Your task to perform on an android device: allow notifications from all sites in the chrome app Image 0: 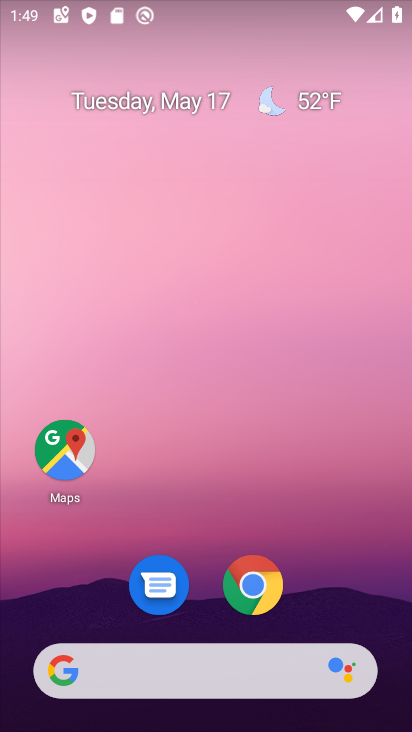
Step 0: click (258, 582)
Your task to perform on an android device: allow notifications from all sites in the chrome app Image 1: 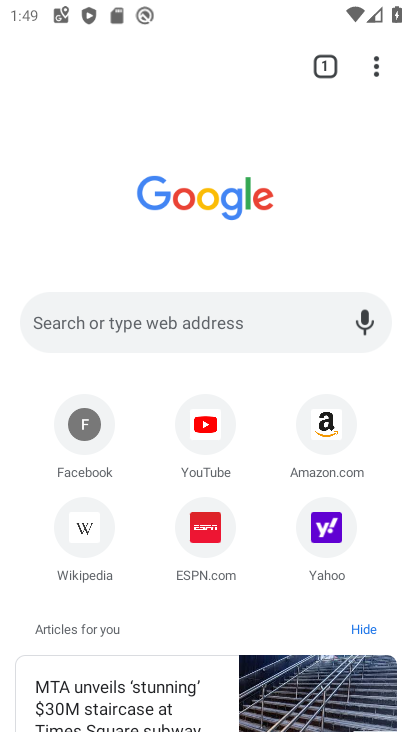
Step 1: click (375, 67)
Your task to perform on an android device: allow notifications from all sites in the chrome app Image 2: 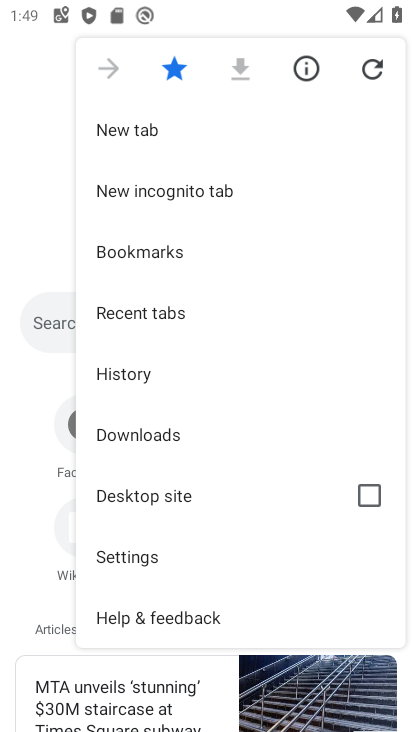
Step 2: click (162, 550)
Your task to perform on an android device: allow notifications from all sites in the chrome app Image 3: 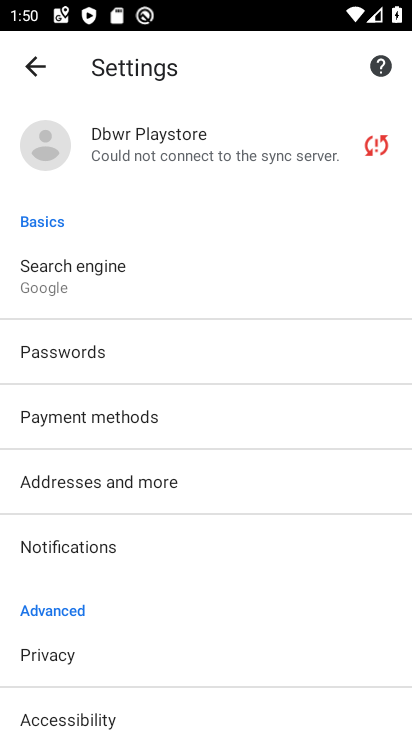
Step 3: click (162, 549)
Your task to perform on an android device: allow notifications from all sites in the chrome app Image 4: 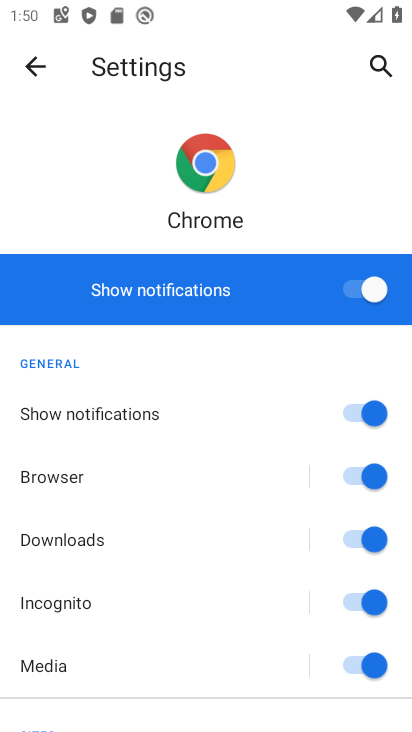
Step 4: task complete